Your task to perform on an android device: make emails show in primary in the gmail app Image 0: 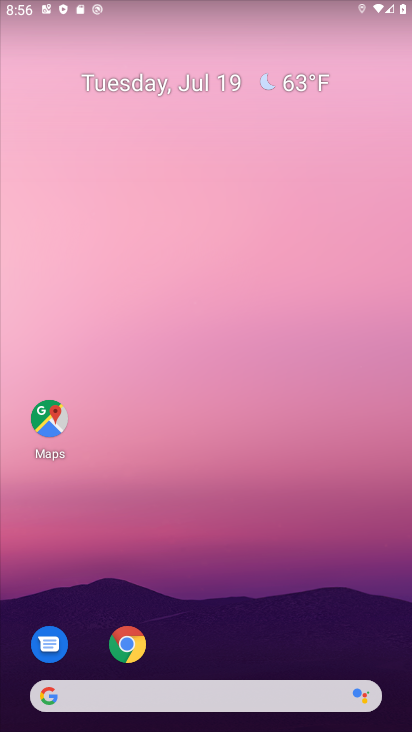
Step 0: drag from (207, 277) to (188, 136)
Your task to perform on an android device: make emails show in primary in the gmail app Image 1: 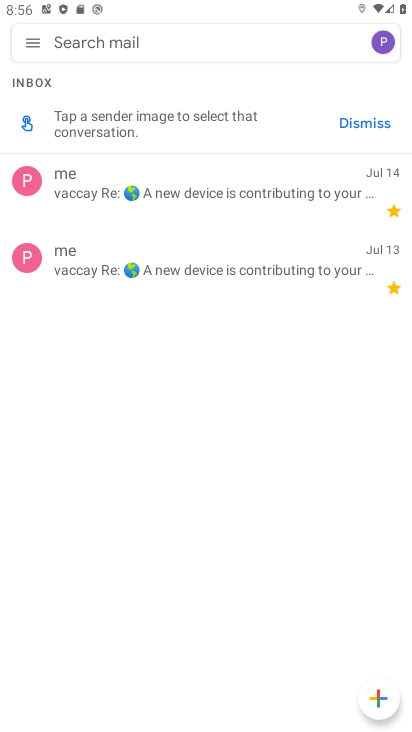
Step 1: click (33, 42)
Your task to perform on an android device: make emails show in primary in the gmail app Image 2: 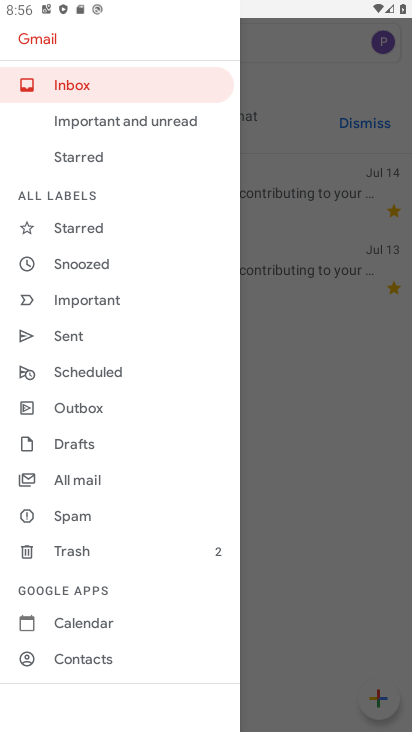
Step 2: drag from (51, 570) to (27, 202)
Your task to perform on an android device: make emails show in primary in the gmail app Image 3: 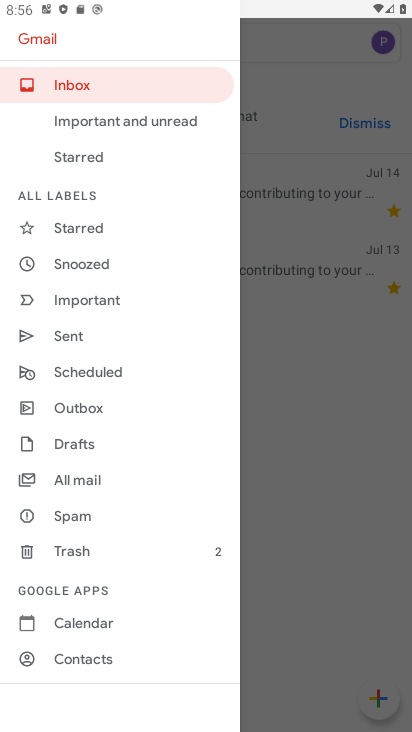
Step 3: drag from (86, 497) to (46, 231)
Your task to perform on an android device: make emails show in primary in the gmail app Image 4: 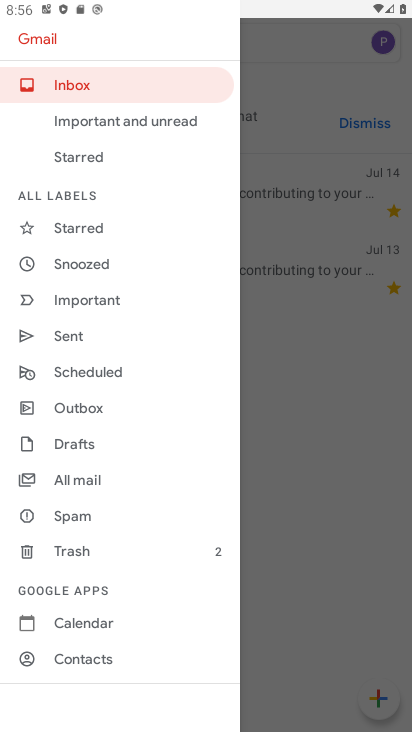
Step 4: drag from (82, 642) to (68, 170)
Your task to perform on an android device: make emails show in primary in the gmail app Image 5: 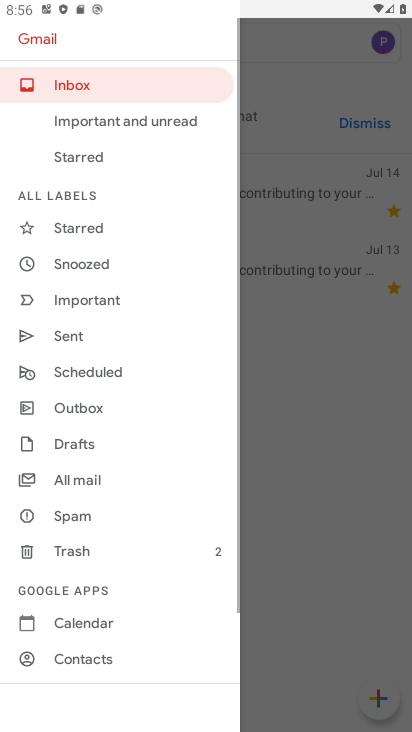
Step 5: drag from (31, 430) to (51, 193)
Your task to perform on an android device: make emails show in primary in the gmail app Image 6: 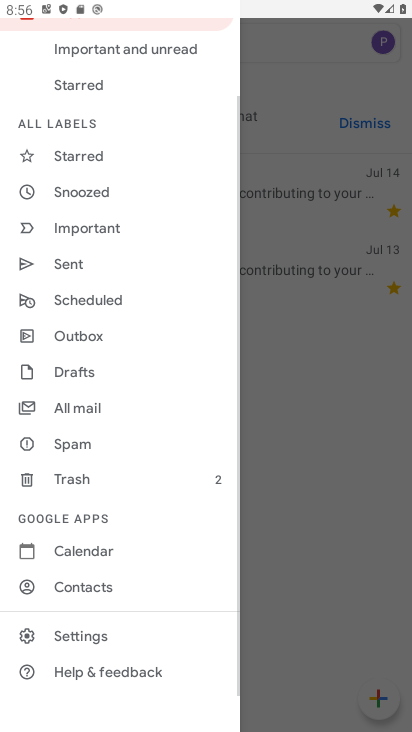
Step 6: click (73, 632)
Your task to perform on an android device: make emails show in primary in the gmail app Image 7: 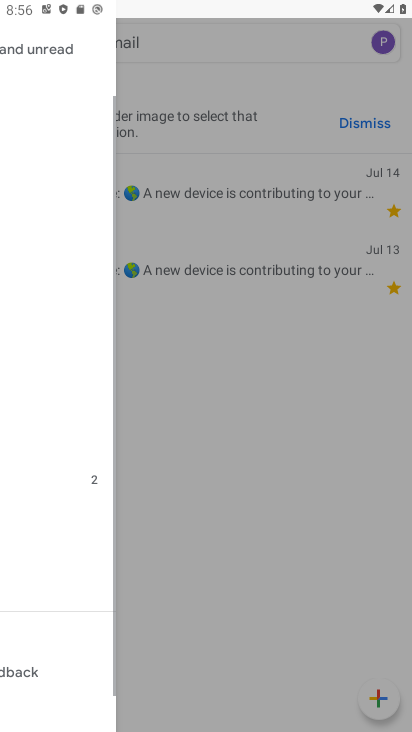
Step 7: click (77, 634)
Your task to perform on an android device: make emails show in primary in the gmail app Image 8: 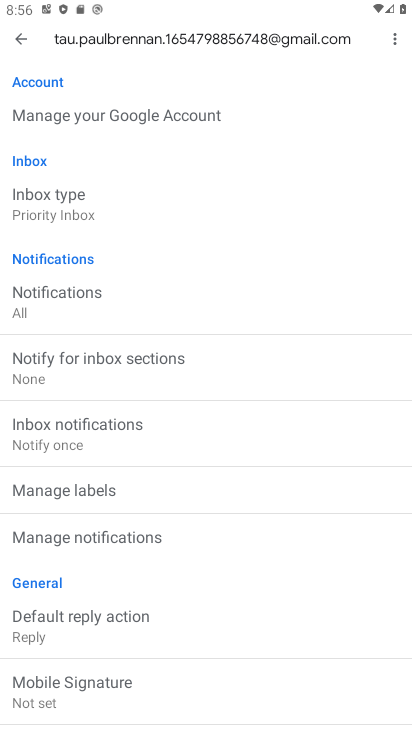
Step 8: click (45, 205)
Your task to perform on an android device: make emails show in primary in the gmail app Image 9: 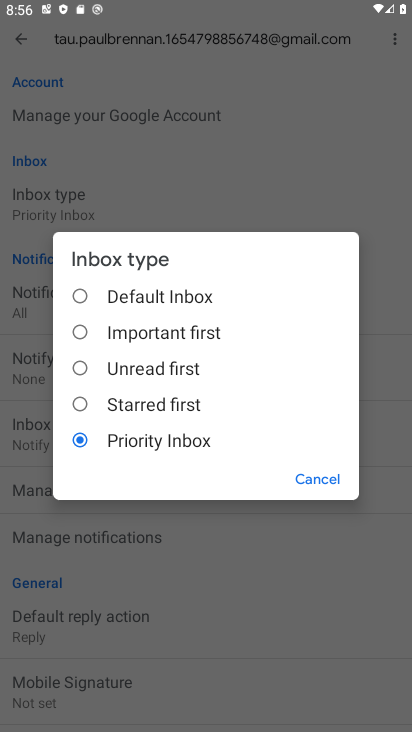
Step 9: click (75, 295)
Your task to perform on an android device: make emails show in primary in the gmail app Image 10: 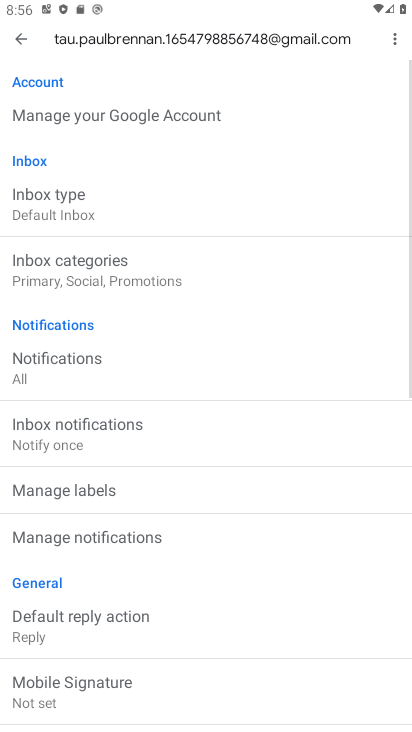
Step 10: task complete